Your task to perform on an android device: Search for dell xps on costco.com, select the first entry, add it to the cart, then select checkout. Image 0: 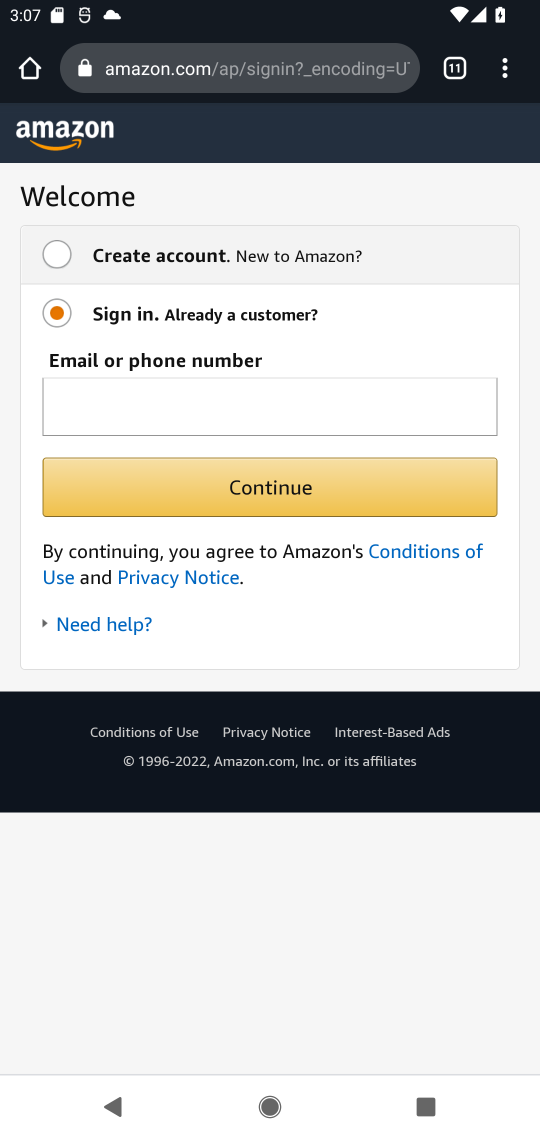
Step 0: press home button
Your task to perform on an android device: Search for dell xps on costco.com, select the first entry, add it to the cart, then select checkout. Image 1: 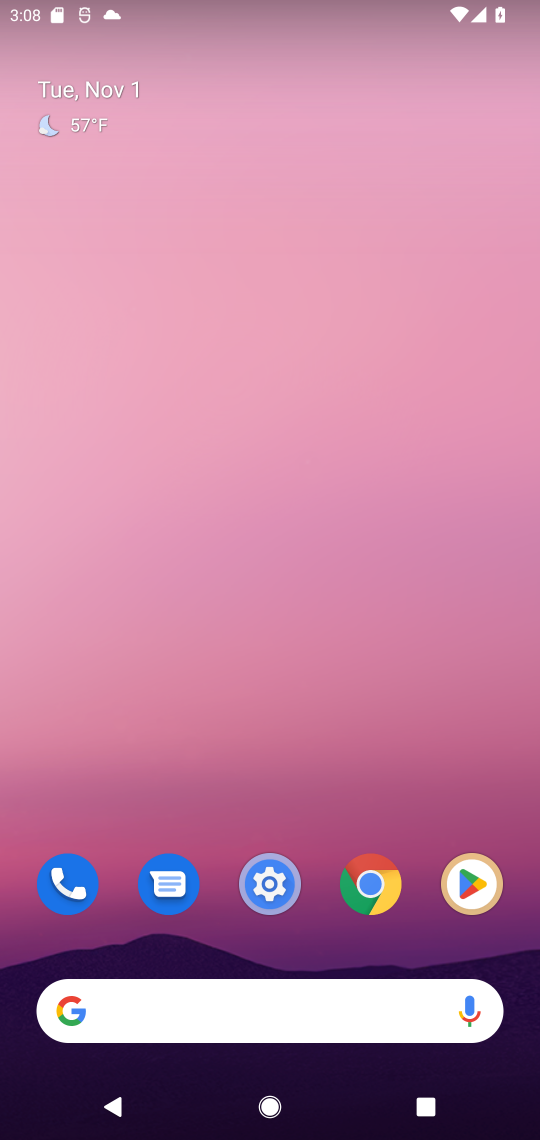
Step 1: click (116, 1008)
Your task to perform on an android device: Search for dell xps on costco.com, select the first entry, add it to the cart, then select checkout. Image 2: 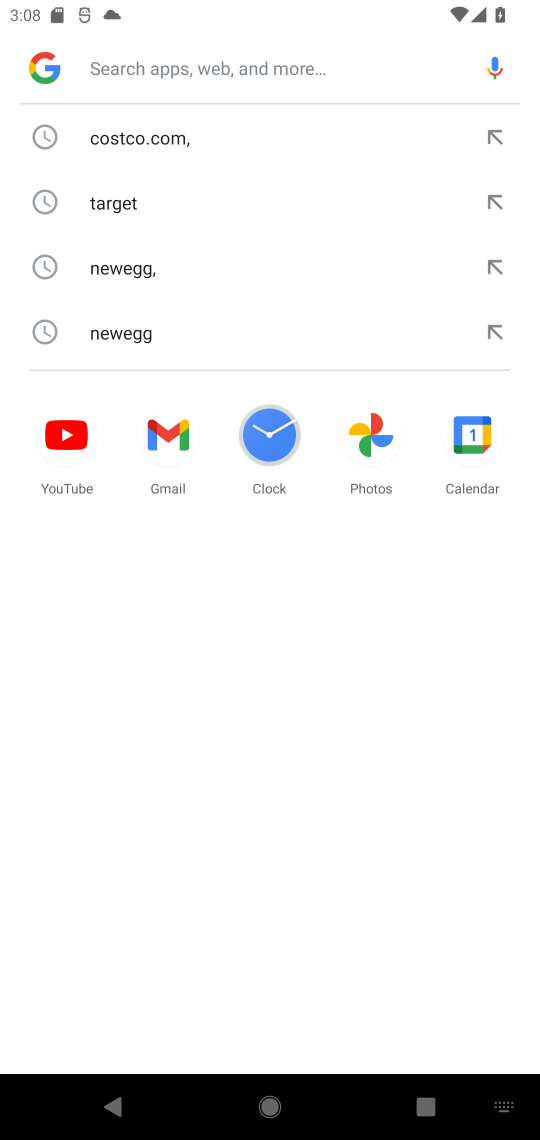
Step 2: click (140, 141)
Your task to perform on an android device: Search for dell xps on costco.com, select the first entry, add it to the cart, then select checkout. Image 3: 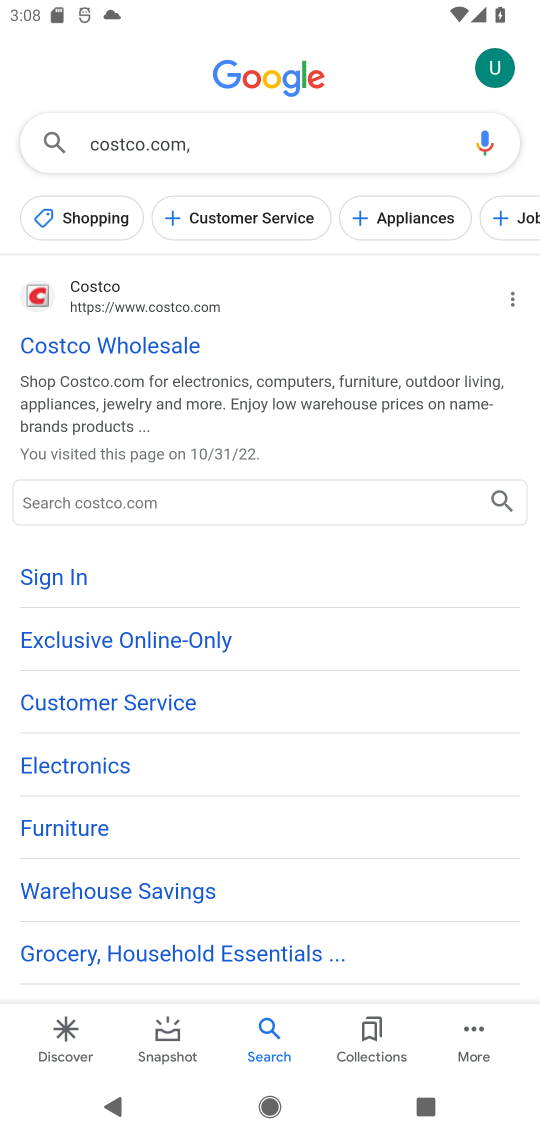
Step 3: click (129, 356)
Your task to perform on an android device: Search for dell xps on costco.com, select the first entry, add it to the cart, then select checkout. Image 4: 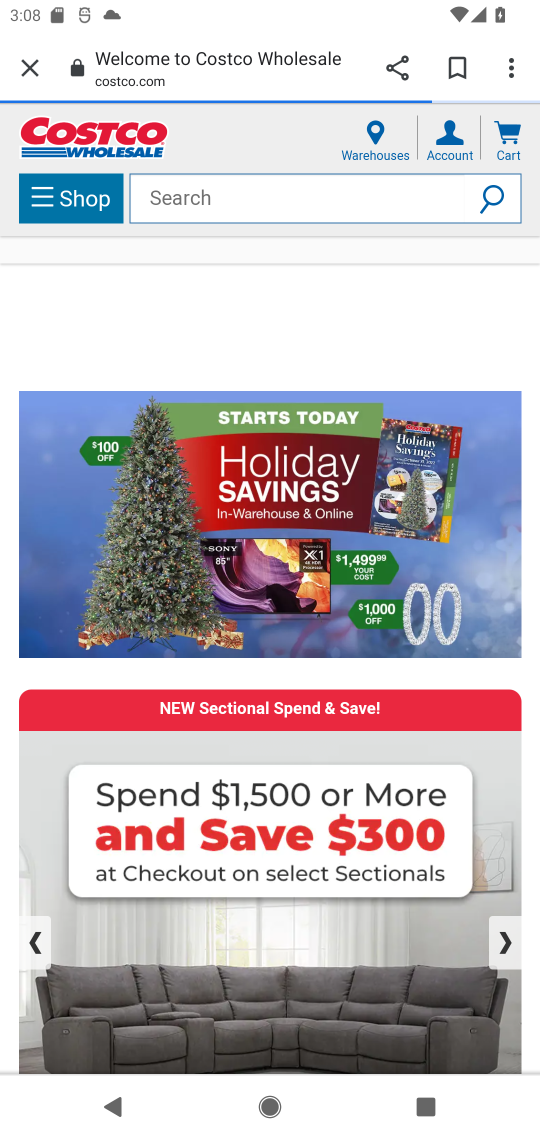
Step 4: click (194, 193)
Your task to perform on an android device: Search for dell xps on costco.com, select the first entry, add it to the cart, then select checkout. Image 5: 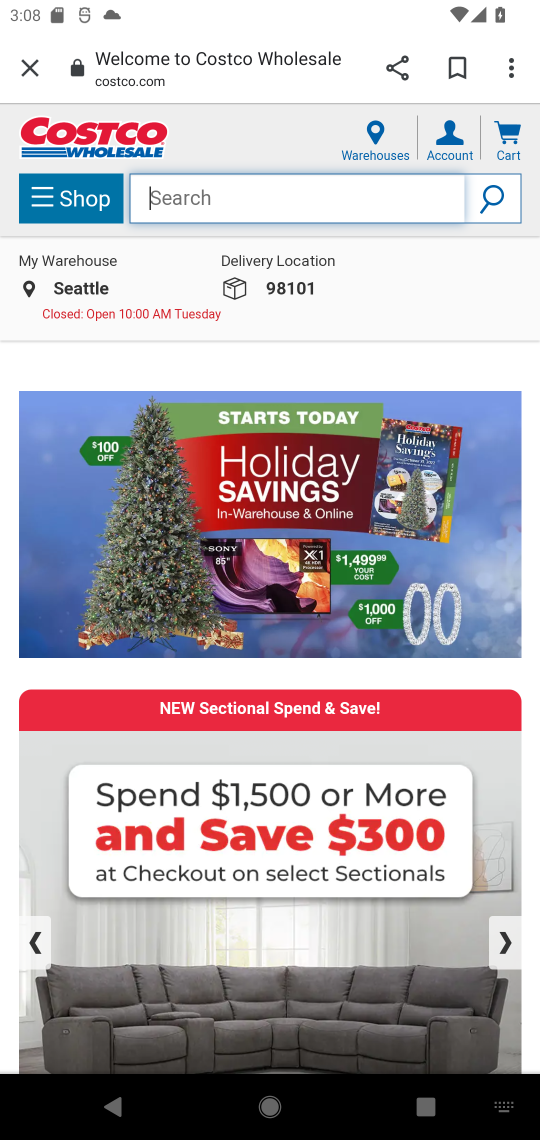
Step 5: type "dell xps "
Your task to perform on an android device: Search for dell xps on costco.com, select the first entry, add it to the cart, then select checkout. Image 6: 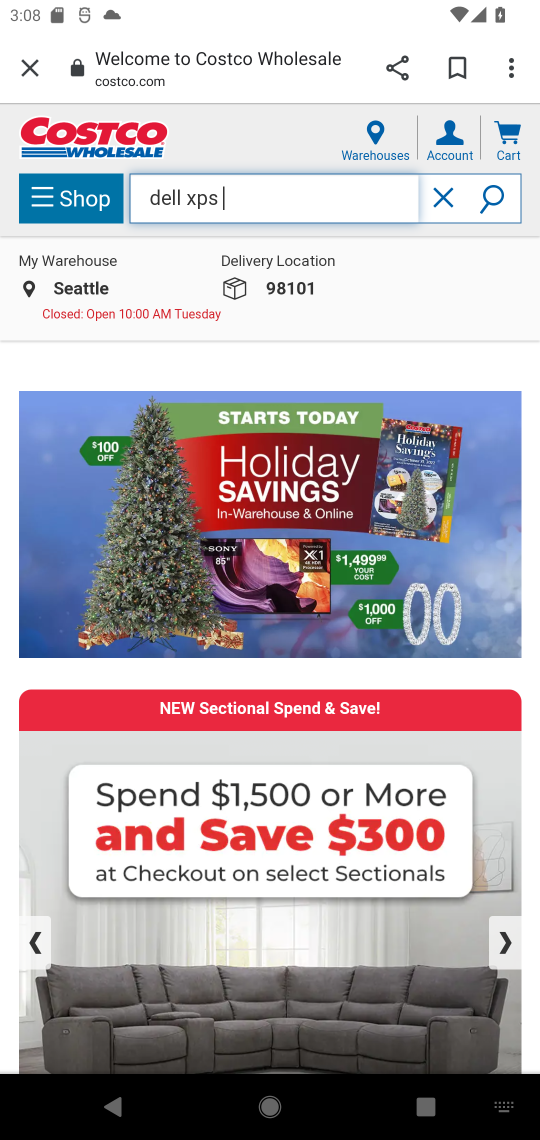
Step 6: press enter
Your task to perform on an android device: Search for dell xps on costco.com, select the first entry, add it to the cart, then select checkout. Image 7: 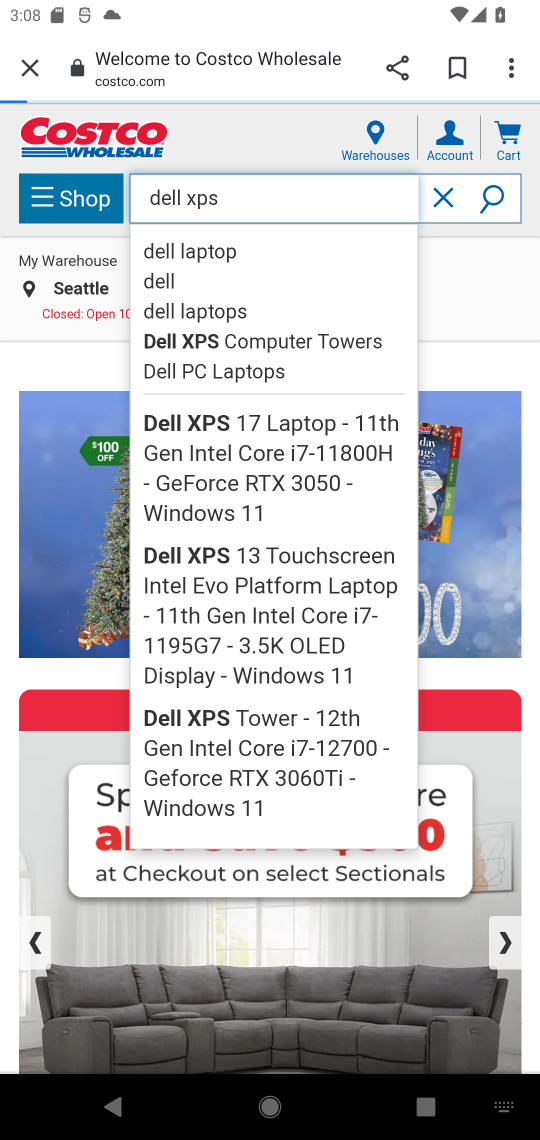
Step 7: click (492, 186)
Your task to perform on an android device: Search for dell xps on costco.com, select the first entry, add it to the cart, then select checkout. Image 8: 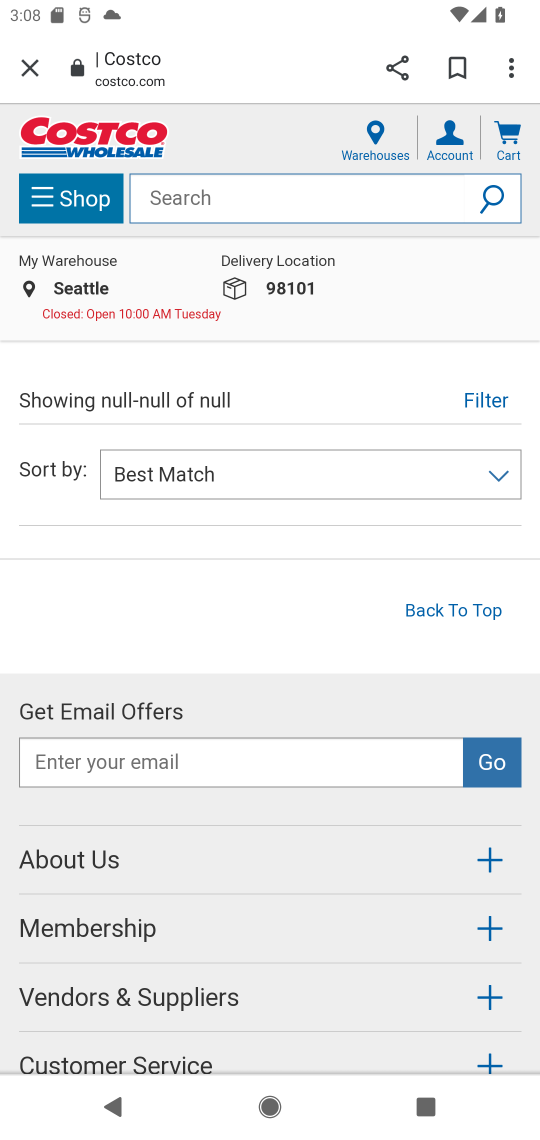
Step 8: click (284, 198)
Your task to perform on an android device: Search for dell xps on costco.com, select the first entry, add it to the cart, then select checkout. Image 9: 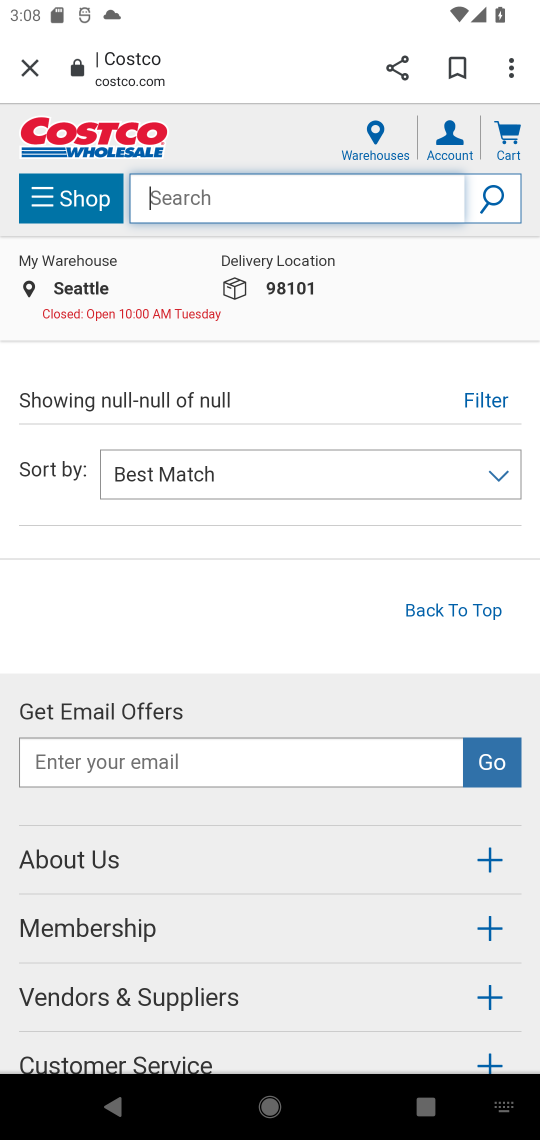
Step 9: type "dell xps "
Your task to perform on an android device: Search for dell xps on costco.com, select the first entry, add it to the cart, then select checkout. Image 10: 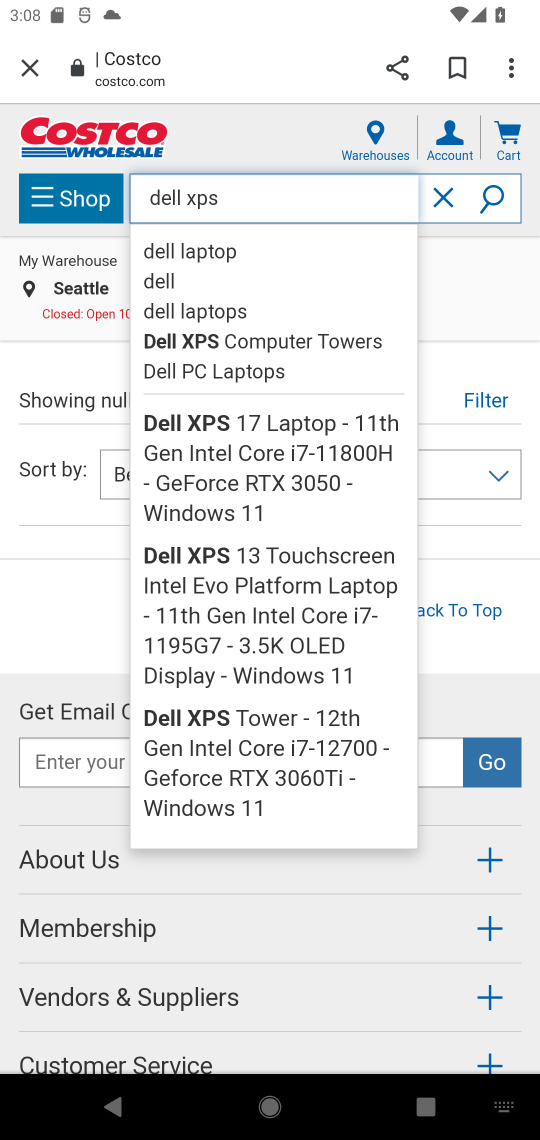
Step 10: click (500, 199)
Your task to perform on an android device: Search for dell xps on costco.com, select the first entry, add it to the cart, then select checkout. Image 11: 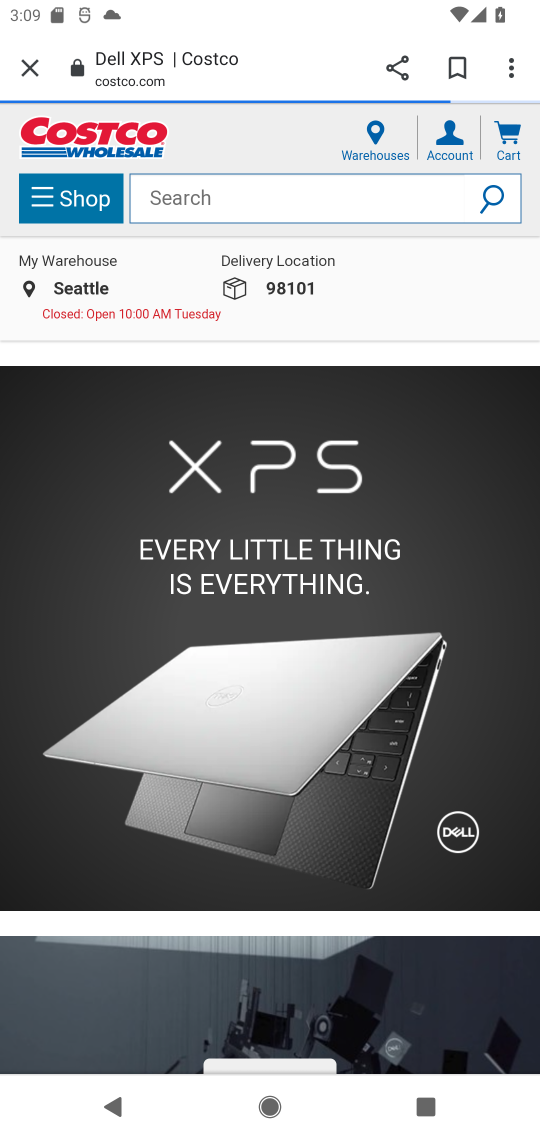
Step 11: task complete